Your task to perform on an android device: set the stopwatch Image 0: 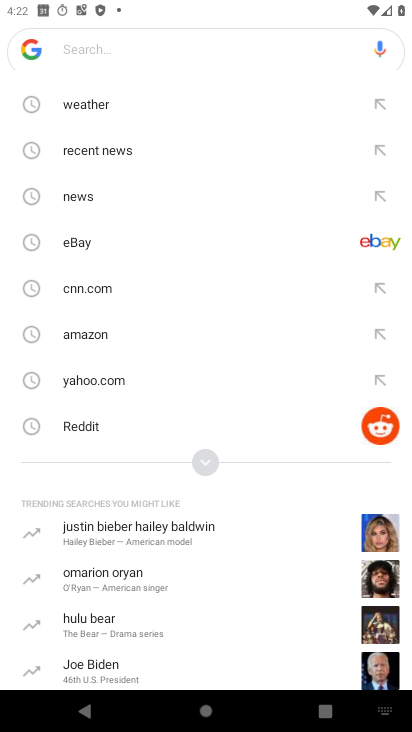
Step 0: press home button
Your task to perform on an android device: set the stopwatch Image 1: 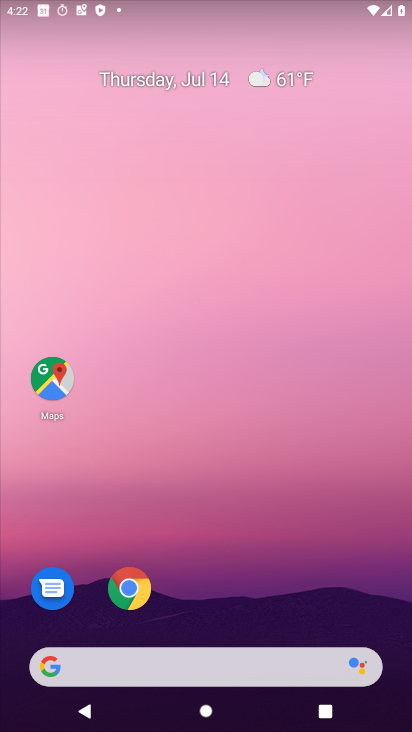
Step 1: drag from (168, 661) to (286, 92)
Your task to perform on an android device: set the stopwatch Image 2: 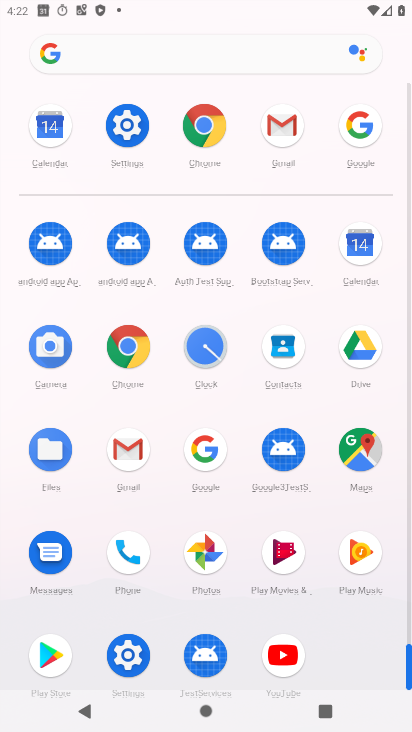
Step 2: click (203, 346)
Your task to perform on an android device: set the stopwatch Image 3: 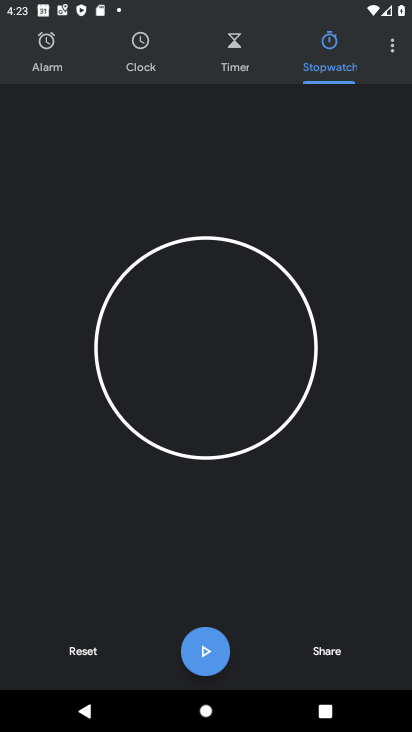
Step 3: click (92, 657)
Your task to perform on an android device: set the stopwatch Image 4: 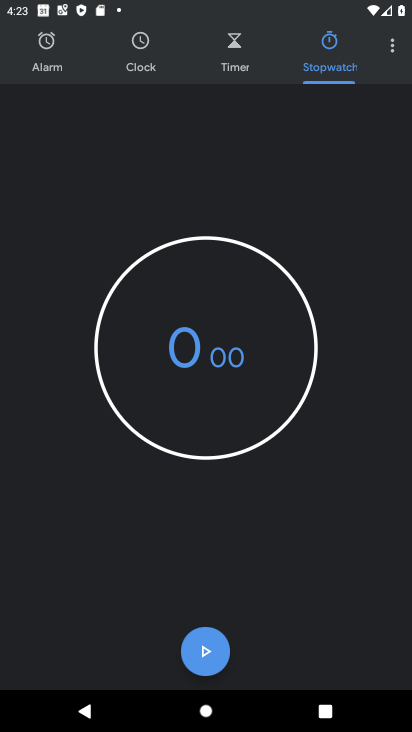
Step 4: click (205, 654)
Your task to perform on an android device: set the stopwatch Image 5: 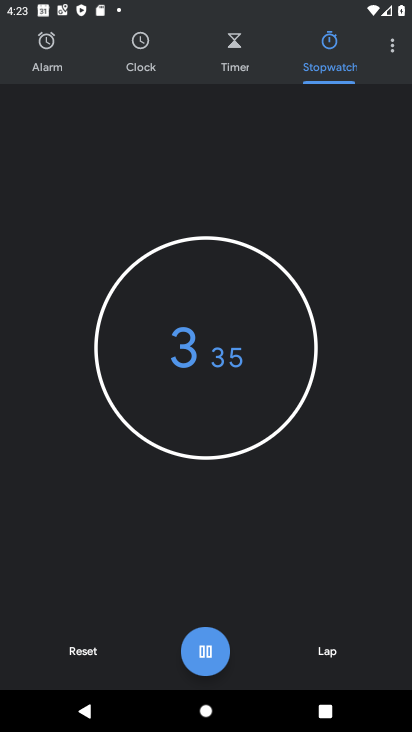
Step 5: click (205, 654)
Your task to perform on an android device: set the stopwatch Image 6: 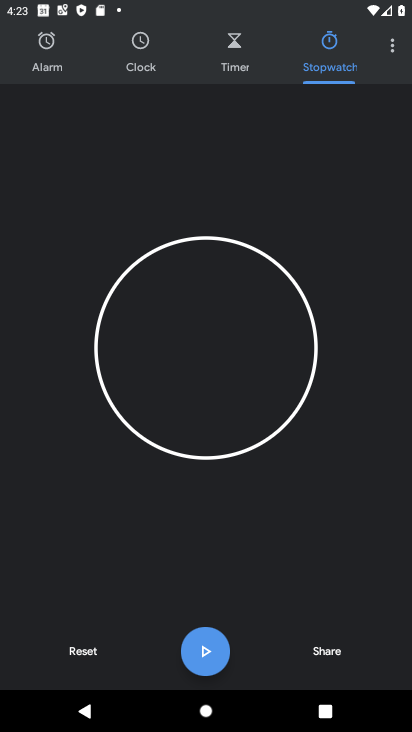
Step 6: task complete